Your task to perform on an android device: turn off priority inbox in the gmail app Image 0: 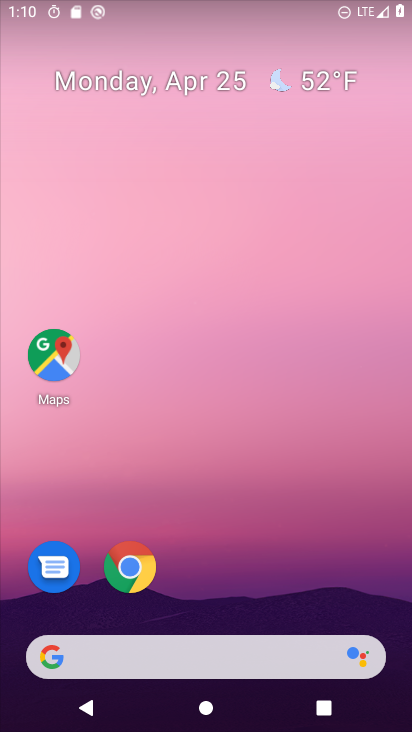
Step 0: drag from (321, 560) to (320, 149)
Your task to perform on an android device: turn off priority inbox in the gmail app Image 1: 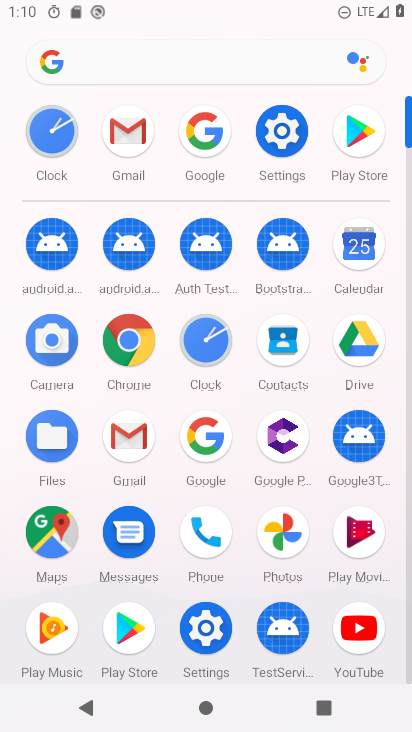
Step 1: click (115, 126)
Your task to perform on an android device: turn off priority inbox in the gmail app Image 2: 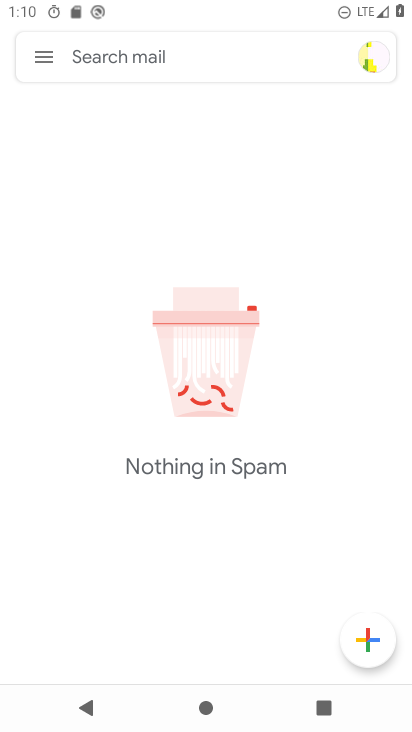
Step 2: click (42, 53)
Your task to perform on an android device: turn off priority inbox in the gmail app Image 3: 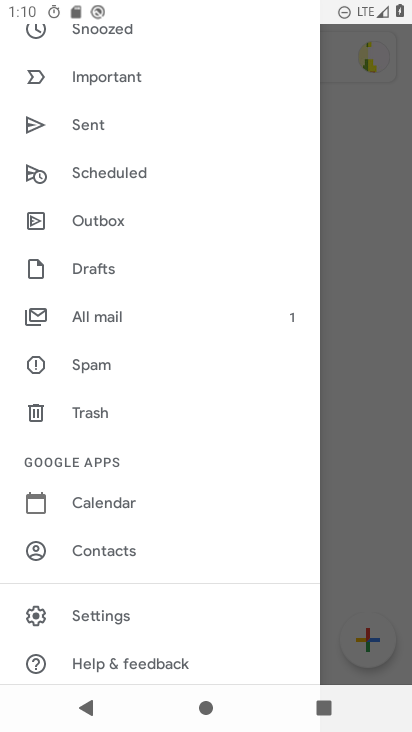
Step 3: click (118, 615)
Your task to perform on an android device: turn off priority inbox in the gmail app Image 4: 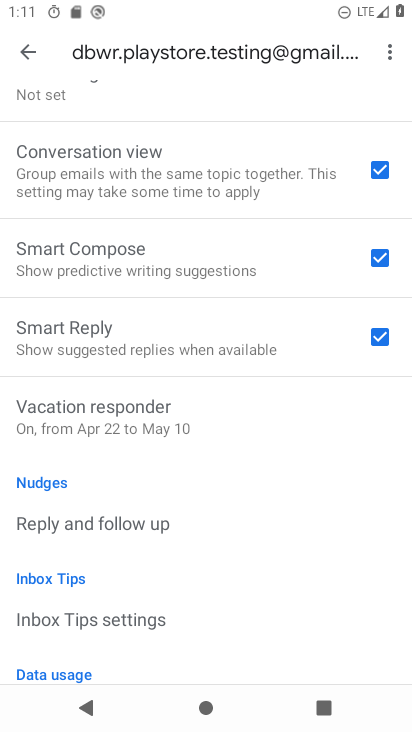
Step 4: drag from (224, 209) to (249, 627)
Your task to perform on an android device: turn off priority inbox in the gmail app Image 5: 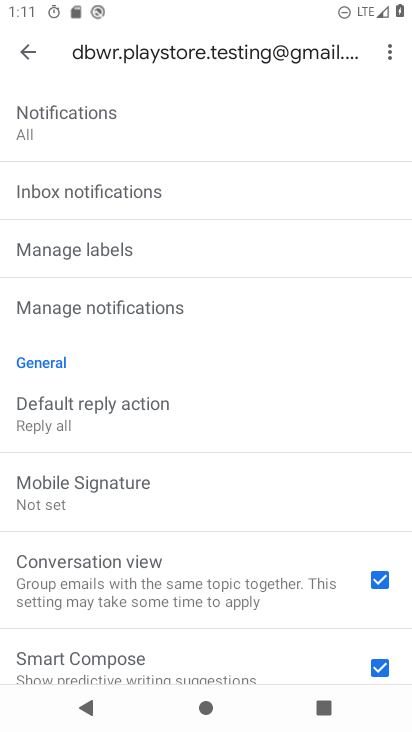
Step 5: drag from (208, 220) to (171, 612)
Your task to perform on an android device: turn off priority inbox in the gmail app Image 6: 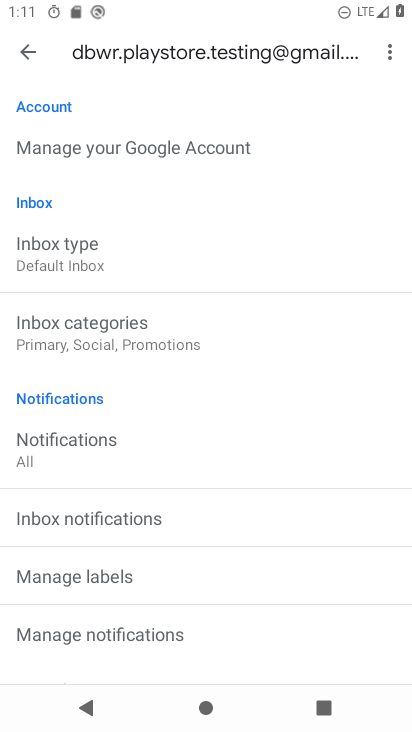
Step 6: click (75, 249)
Your task to perform on an android device: turn off priority inbox in the gmail app Image 7: 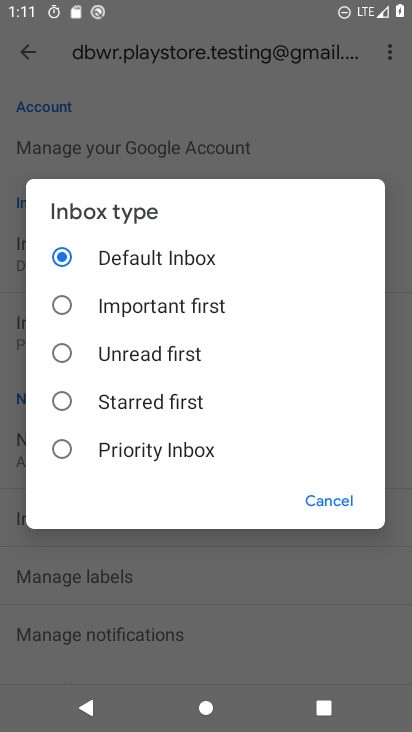
Step 7: click (338, 496)
Your task to perform on an android device: turn off priority inbox in the gmail app Image 8: 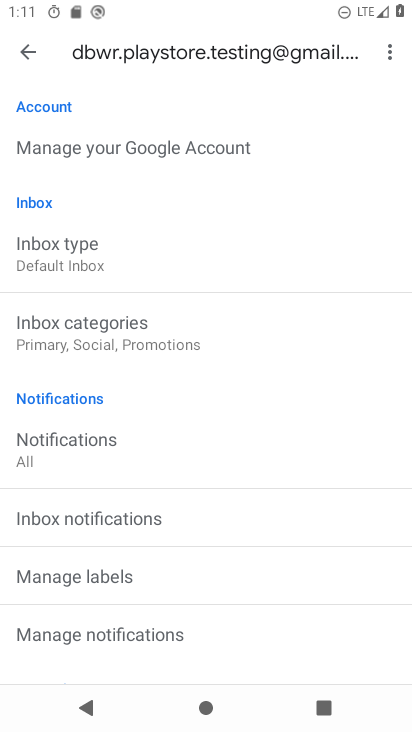
Step 8: task complete